Your task to perform on an android device: move an email to a new category in the gmail app Image 0: 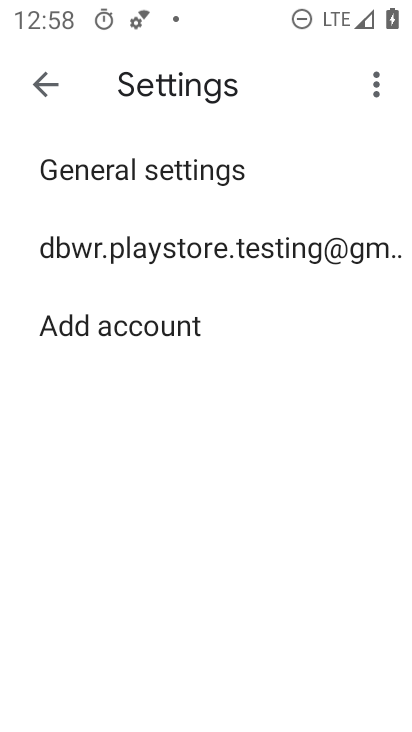
Step 0: press home button
Your task to perform on an android device: move an email to a new category in the gmail app Image 1: 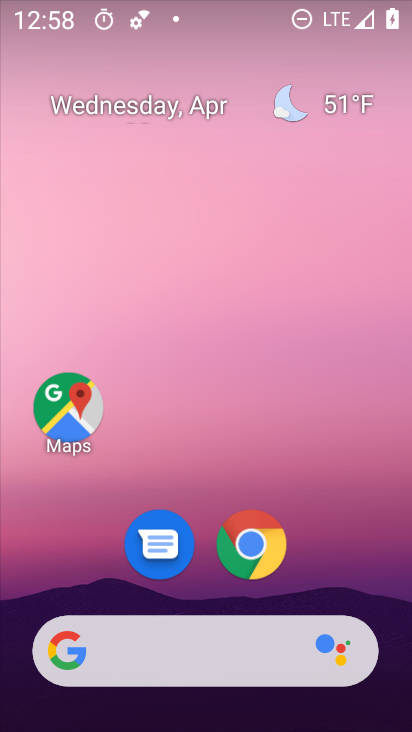
Step 1: drag from (319, 569) to (331, 138)
Your task to perform on an android device: move an email to a new category in the gmail app Image 2: 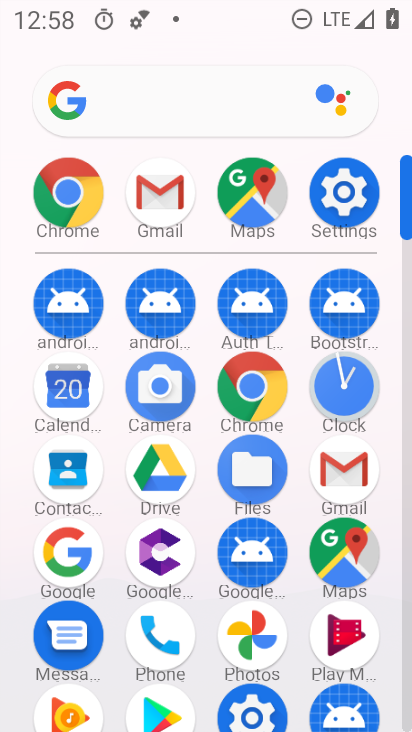
Step 2: click (359, 468)
Your task to perform on an android device: move an email to a new category in the gmail app Image 3: 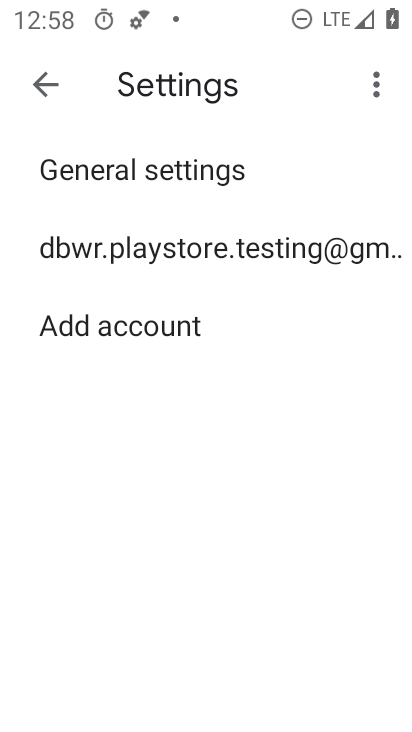
Step 3: click (35, 84)
Your task to perform on an android device: move an email to a new category in the gmail app Image 4: 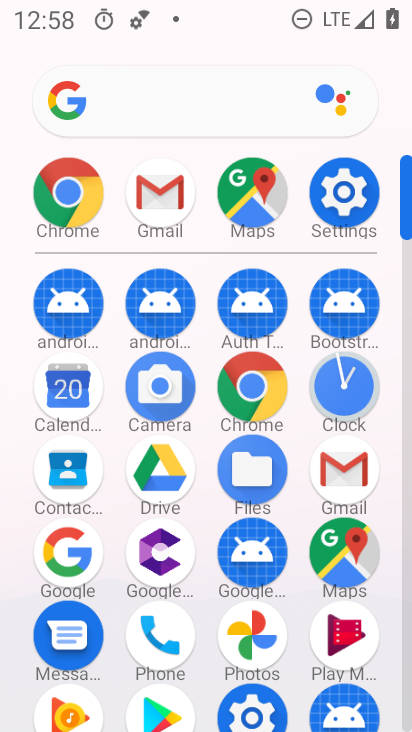
Step 4: click (363, 461)
Your task to perform on an android device: move an email to a new category in the gmail app Image 5: 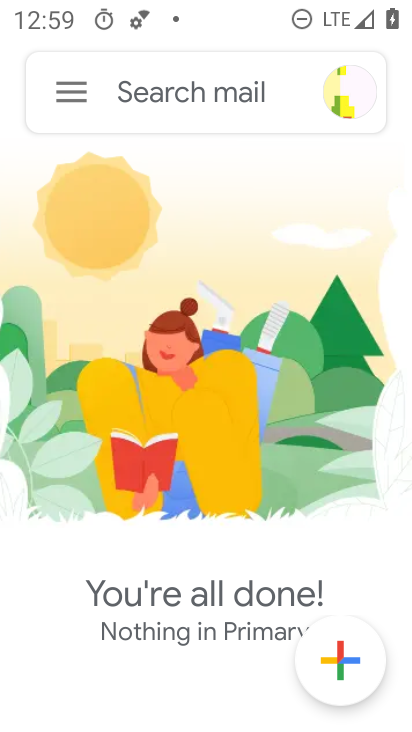
Step 5: task complete